Your task to perform on an android device: Open the calendar and show me this week's events? Image 0: 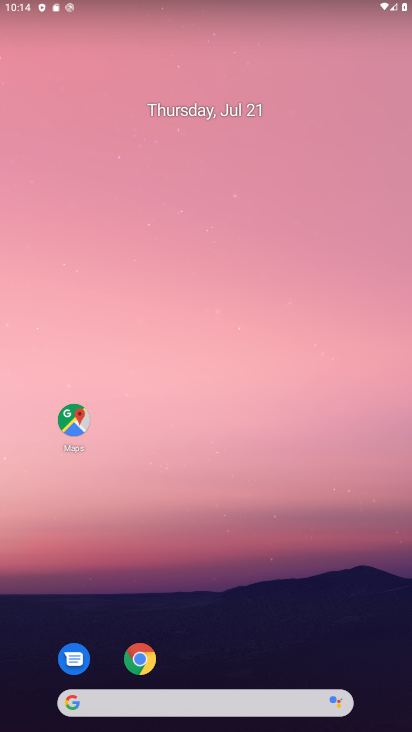
Step 0: drag from (170, 731) to (178, 172)
Your task to perform on an android device: Open the calendar and show me this week's events? Image 1: 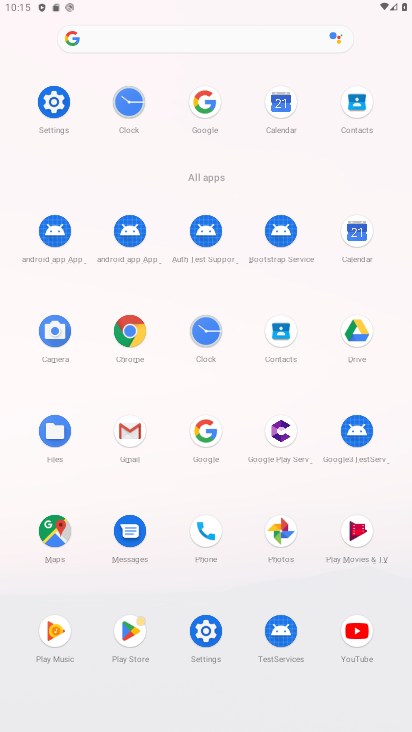
Step 1: click (359, 236)
Your task to perform on an android device: Open the calendar and show me this week's events? Image 2: 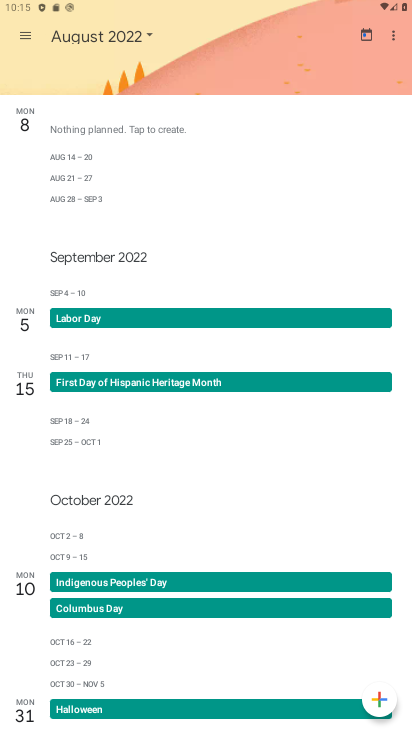
Step 2: click (145, 32)
Your task to perform on an android device: Open the calendar and show me this week's events? Image 3: 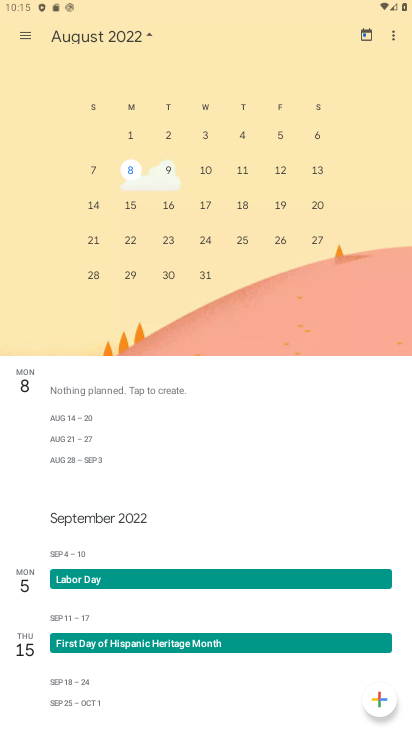
Step 3: drag from (84, 202) to (399, 240)
Your task to perform on an android device: Open the calendar and show me this week's events? Image 4: 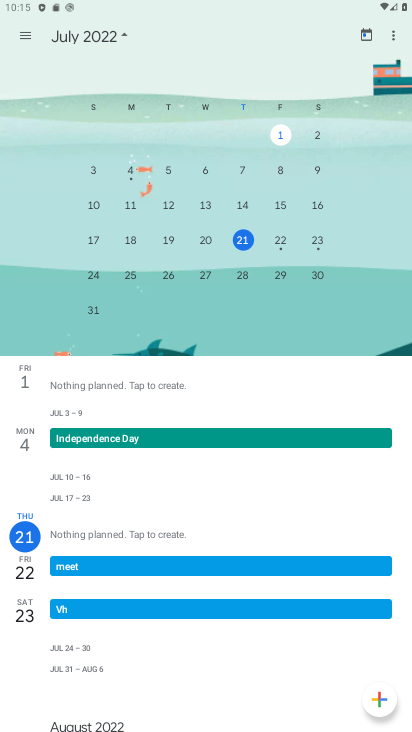
Step 4: click (24, 30)
Your task to perform on an android device: Open the calendar and show me this week's events? Image 5: 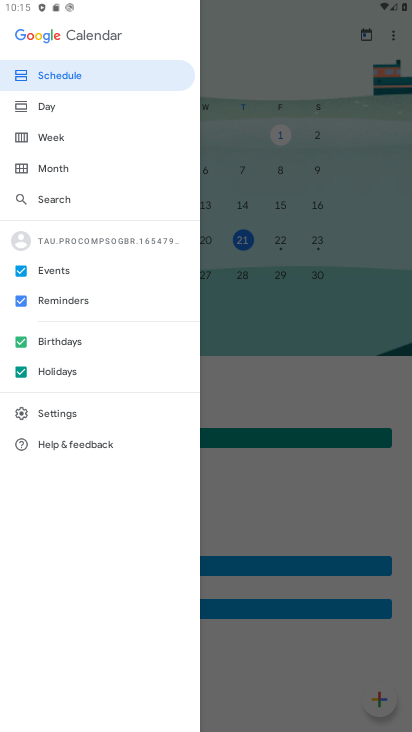
Step 5: click (22, 374)
Your task to perform on an android device: Open the calendar and show me this week's events? Image 6: 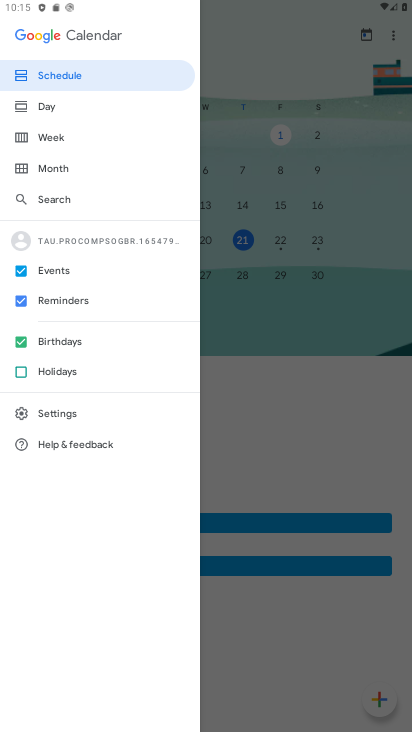
Step 6: click (20, 342)
Your task to perform on an android device: Open the calendar and show me this week's events? Image 7: 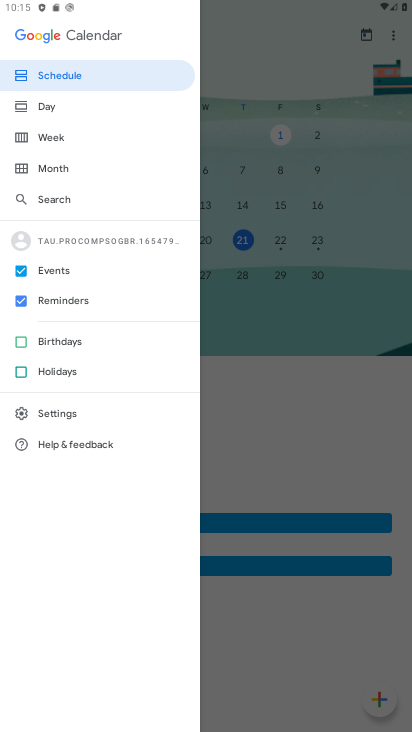
Step 7: click (21, 295)
Your task to perform on an android device: Open the calendar and show me this week's events? Image 8: 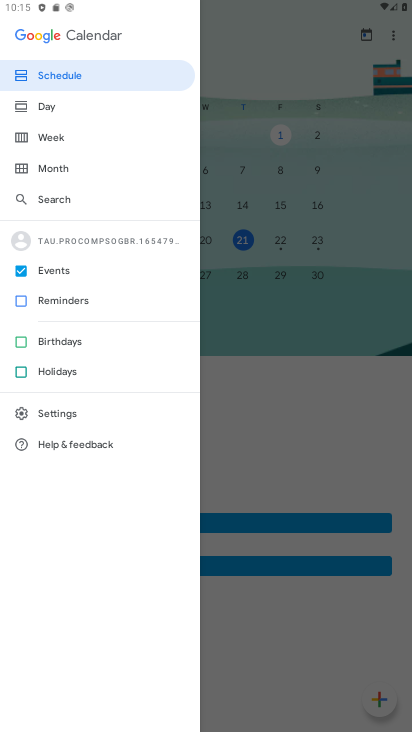
Step 8: click (54, 138)
Your task to perform on an android device: Open the calendar and show me this week's events? Image 9: 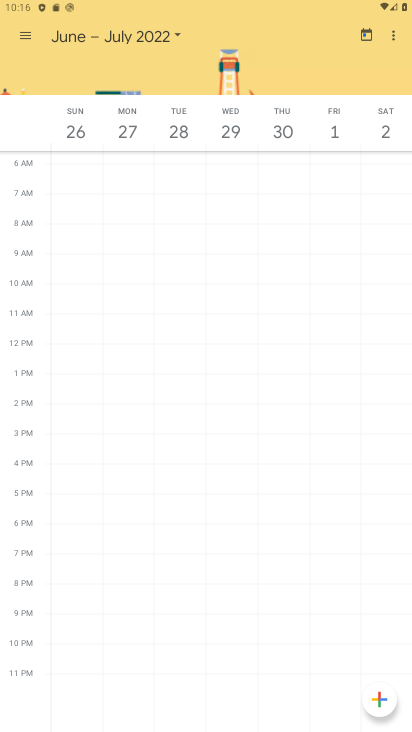
Step 9: task complete